Your task to perform on an android device: Open Maps and search for coffee Image 0: 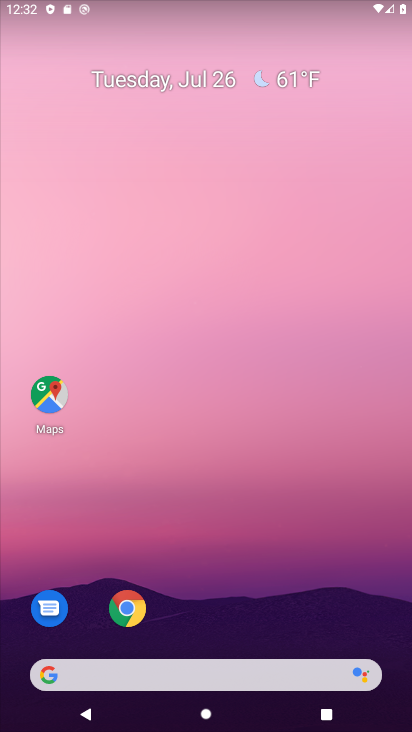
Step 0: click (214, 669)
Your task to perform on an android device: Open Maps and search for coffee Image 1: 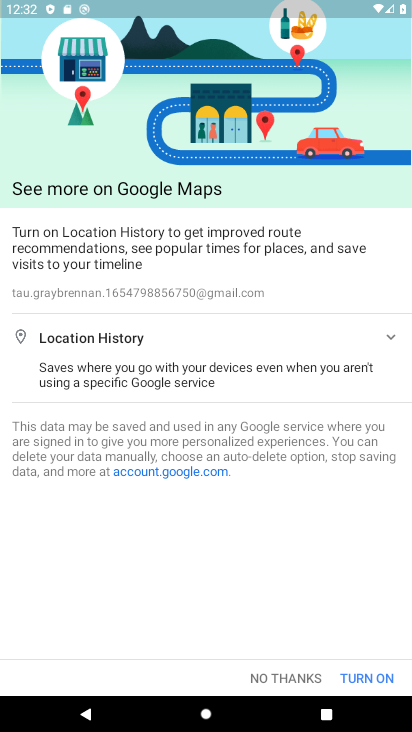
Step 1: click (271, 679)
Your task to perform on an android device: Open Maps and search for coffee Image 2: 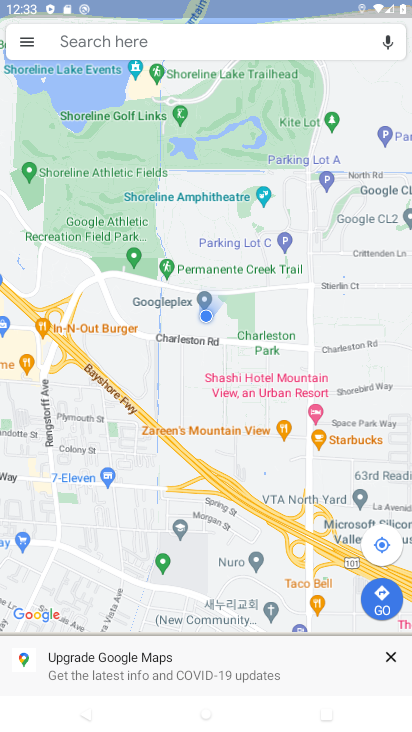
Step 2: click (173, 40)
Your task to perform on an android device: Open Maps and search for coffee Image 3: 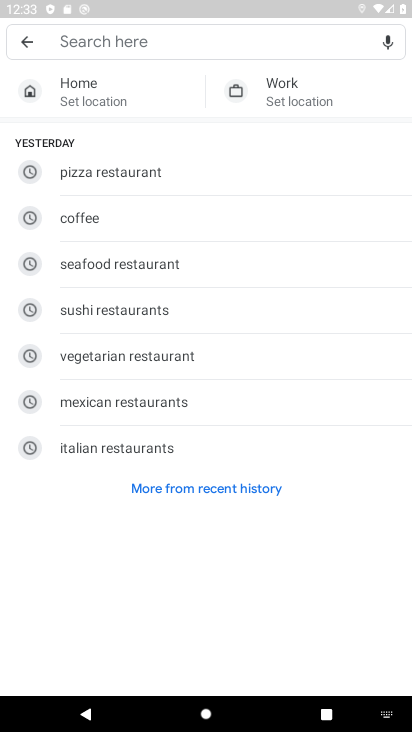
Step 3: type "coffee"
Your task to perform on an android device: Open Maps and search for coffee Image 4: 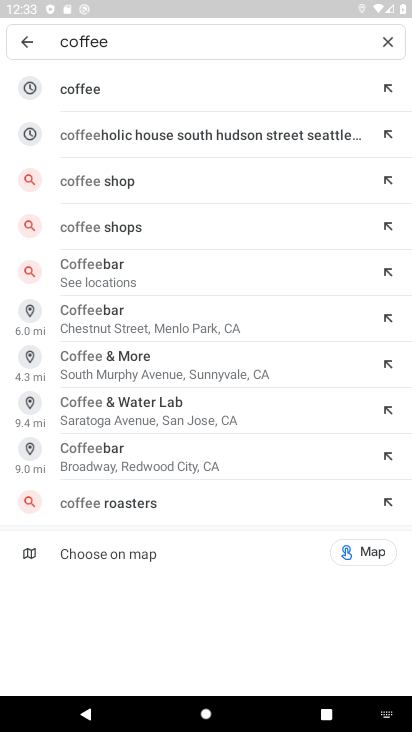
Step 4: click (215, 88)
Your task to perform on an android device: Open Maps and search for coffee Image 5: 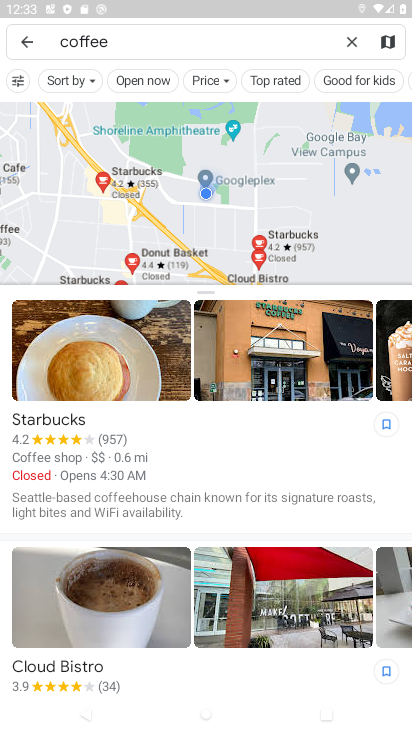
Step 5: task complete